Your task to perform on an android device: turn on javascript in the chrome app Image 0: 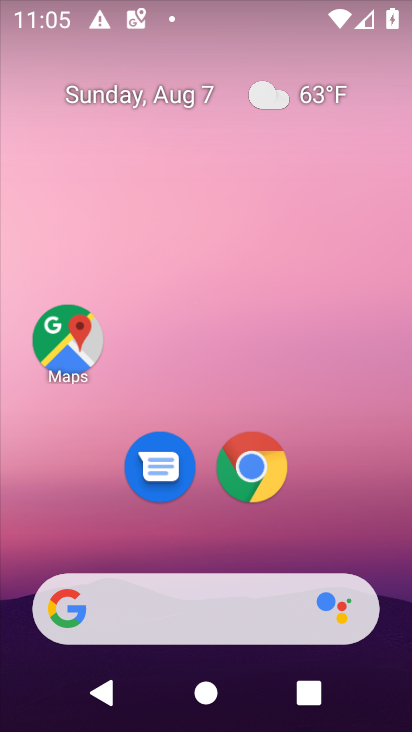
Step 0: drag from (222, 253) to (166, 62)
Your task to perform on an android device: turn on javascript in the chrome app Image 1: 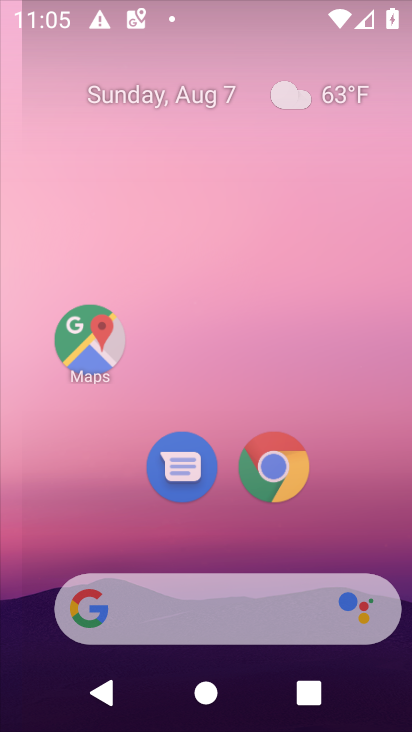
Step 1: drag from (160, 358) to (181, 242)
Your task to perform on an android device: turn on javascript in the chrome app Image 2: 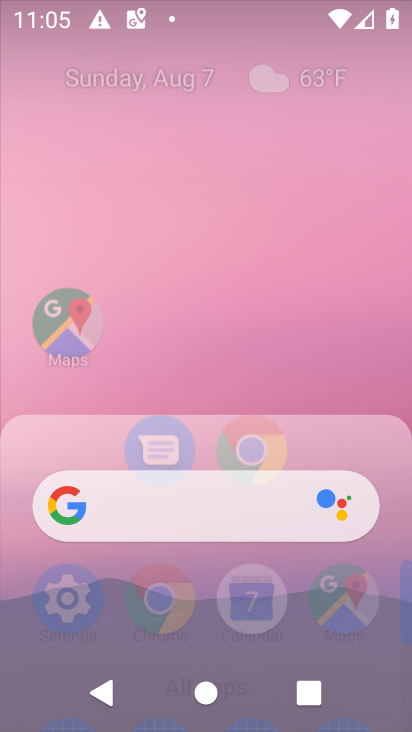
Step 2: drag from (204, 471) to (196, 195)
Your task to perform on an android device: turn on javascript in the chrome app Image 3: 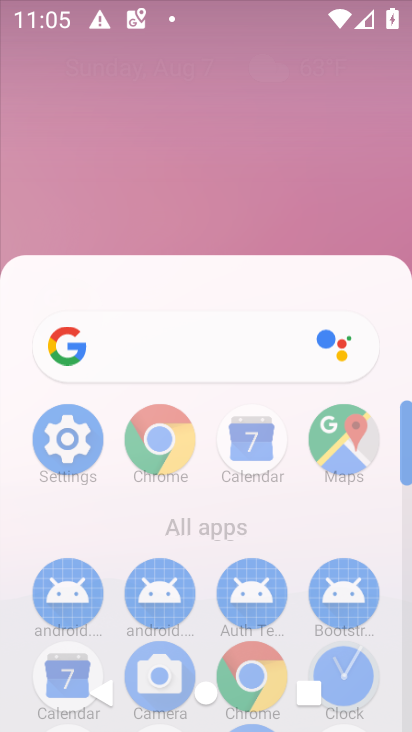
Step 3: drag from (163, 460) to (154, 194)
Your task to perform on an android device: turn on javascript in the chrome app Image 4: 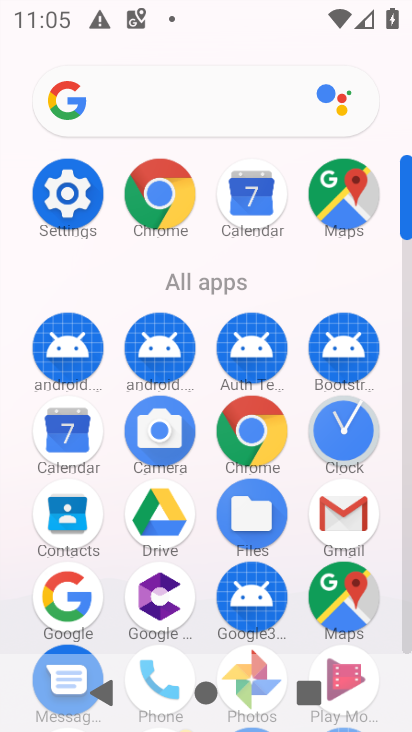
Step 4: click (158, 209)
Your task to perform on an android device: turn on javascript in the chrome app Image 5: 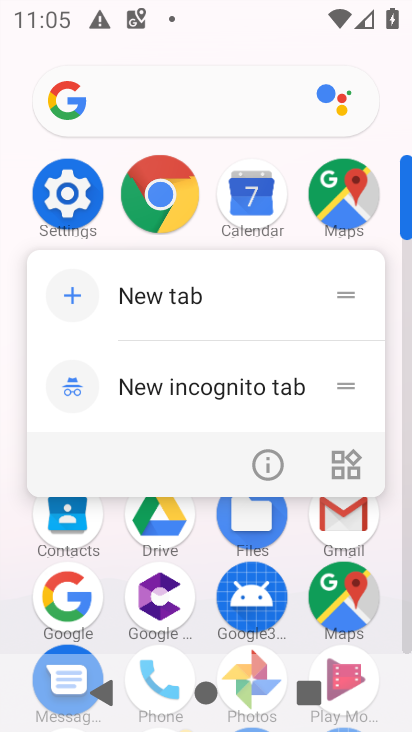
Step 5: click (159, 208)
Your task to perform on an android device: turn on javascript in the chrome app Image 6: 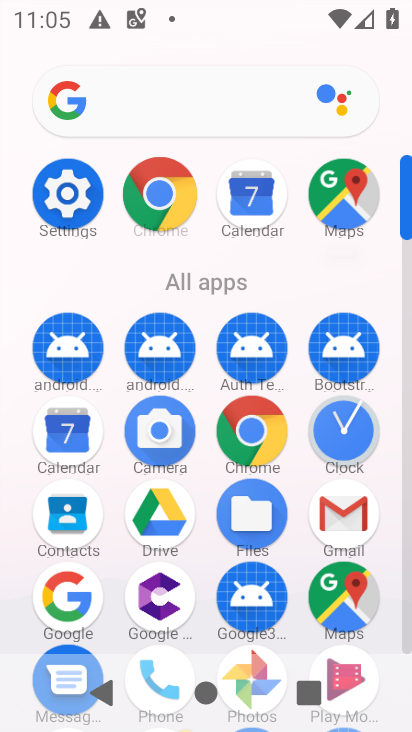
Step 6: click (167, 212)
Your task to perform on an android device: turn on javascript in the chrome app Image 7: 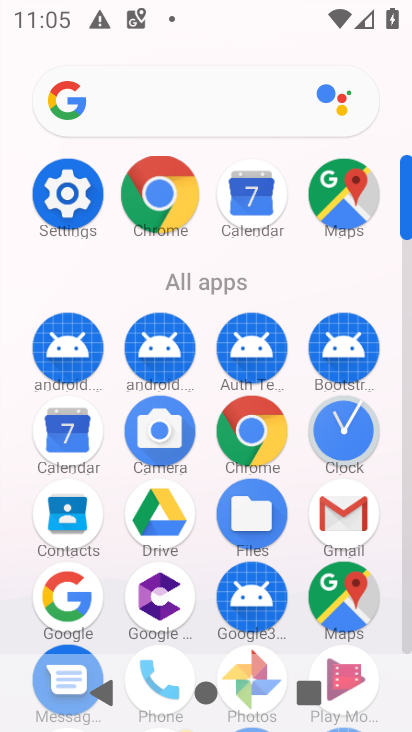
Step 7: click (167, 212)
Your task to perform on an android device: turn on javascript in the chrome app Image 8: 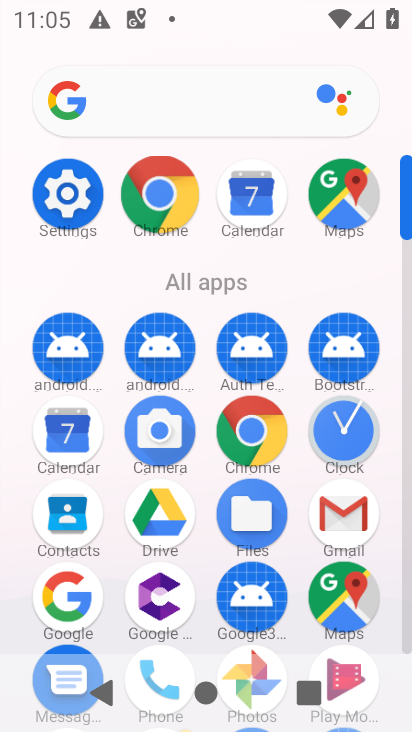
Step 8: click (167, 212)
Your task to perform on an android device: turn on javascript in the chrome app Image 9: 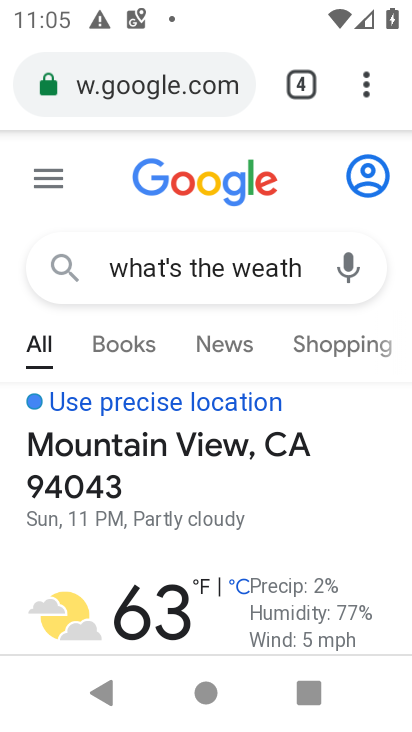
Step 9: drag from (360, 84) to (74, 515)
Your task to perform on an android device: turn on javascript in the chrome app Image 10: 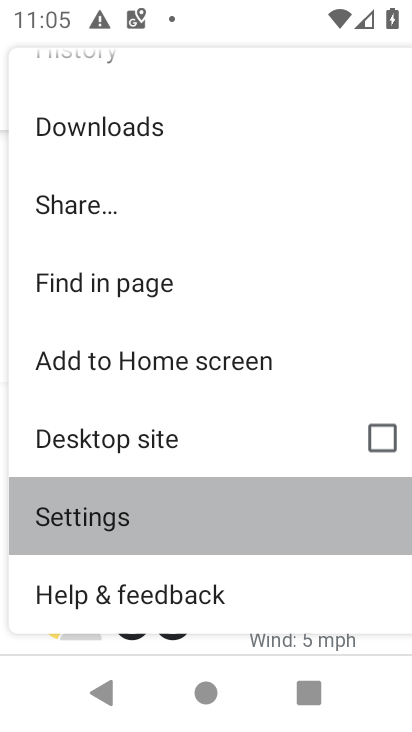
Step 10: click (75, 514)
Your task to perform on an android device: turn on javascript in the chrome app Image 11: 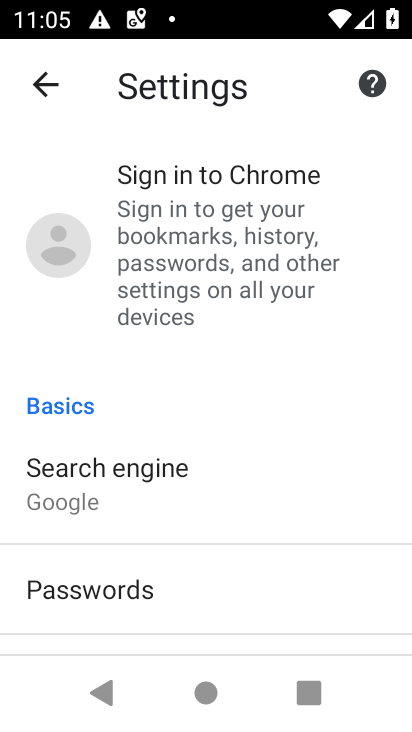
Step 11: drag from (254, 667) to (230, 347)
Your task to perform on an android device: turn on javascript in the chrome app Image 12: 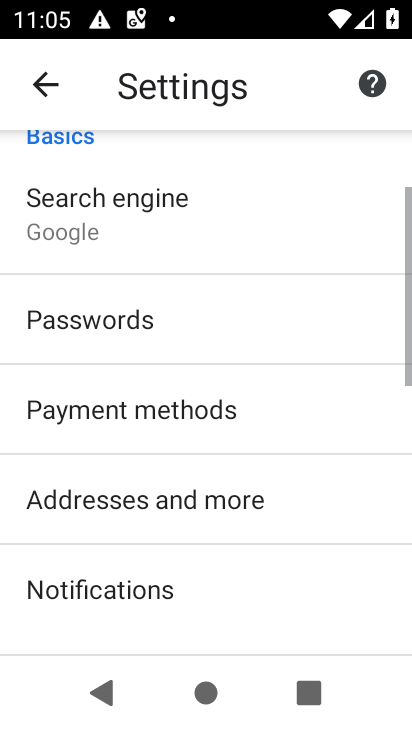
Step 12: drag from (196, 522) to (196, 433)
Your task to perform on an android device: turn on javascript in the chrome app Image 13: 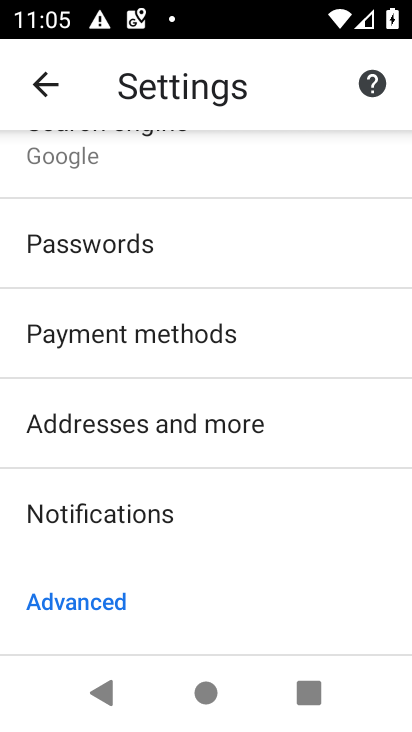
Step 13: drag from (122, 557) to (112, 301)
Your task to perform on an android device: turn on javascript in the chrome app Image 14: 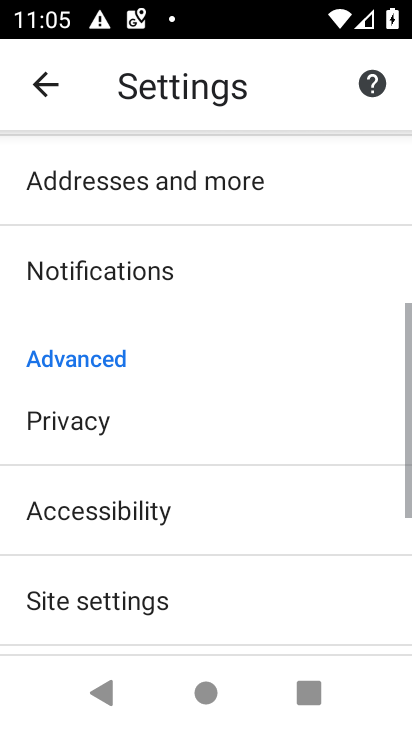
Step 14: drag from (168, 525) to (182, 326)
Your task to perform on an android device: turn on javascript in the chrome app Image 15: 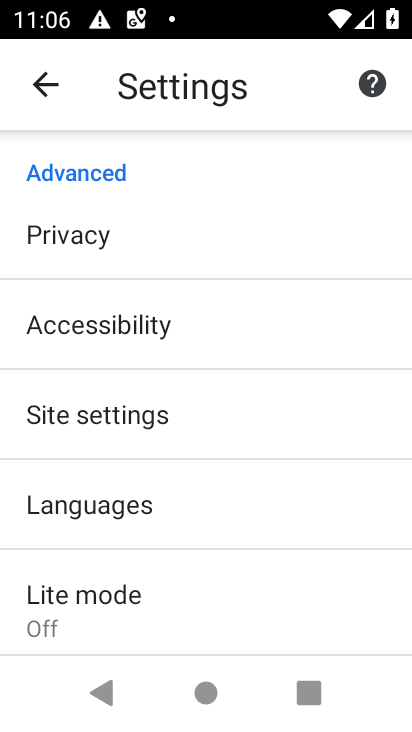
Step 15: click (83, 422)
Your task to perform on an android device: turn on javascript in the chrome app Image 16: 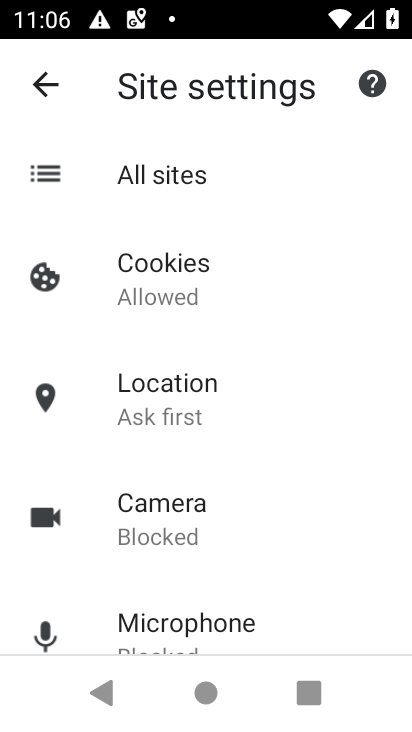
Step 16: drag from (221, 562) to (168, 347)
Your task to perform on an android device: turn on javascript in the chrome app Image 17: 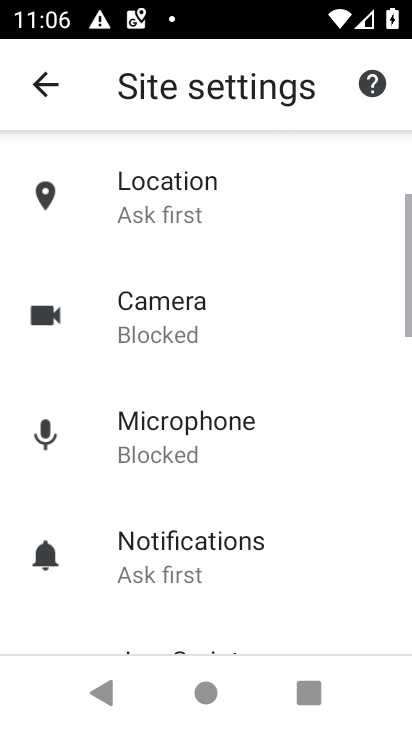
Step 17: drag from (218, 558) to (212, 321)
Your task to perform on an android device: turn on javascript in the chrome app Image 18: 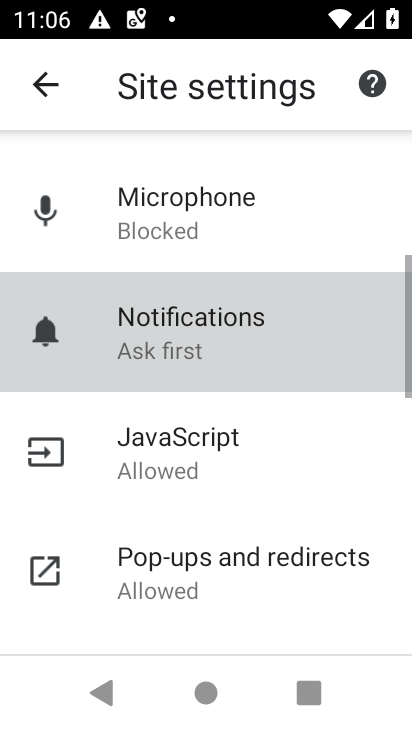
Step 18: drag from (199, 492) to (199, 331)
Your task to perform on an android device: turn on javascript in the chrome app Image 19: 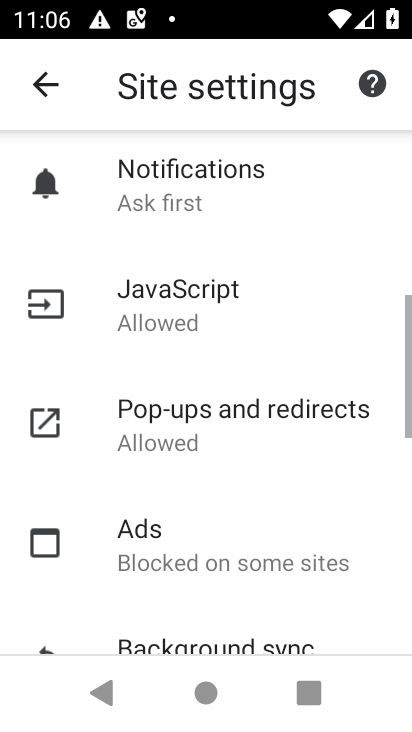
Step 19: drag from (174, 579) to (195, 281)
Your task to perform on an android device: turn on javascript in the chrome app Image 20: 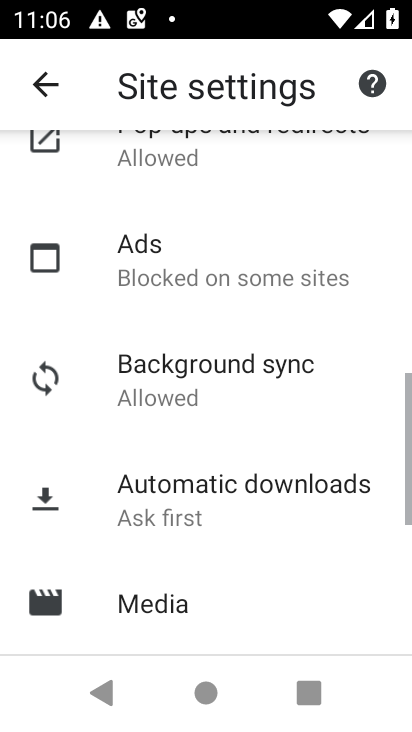
Step 20: click (148, 313)
Your task to perform on an android device: turn on javascript in the chrome app Image 21: 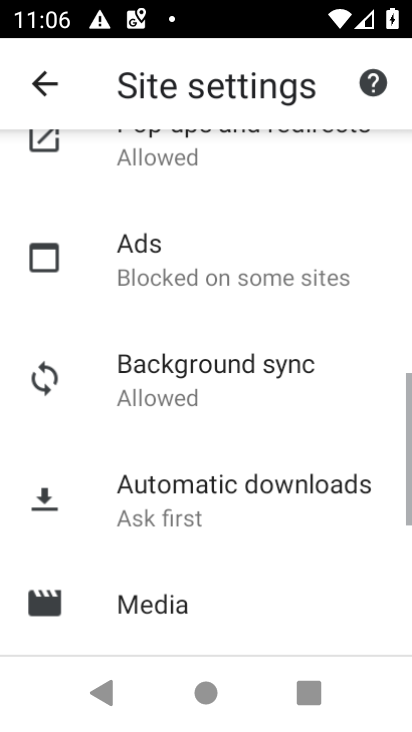
Step 21: drag from (154, 286) to (177, 483)
Your task to perform on an android device: turn on javascript in the chrome app Image 22: 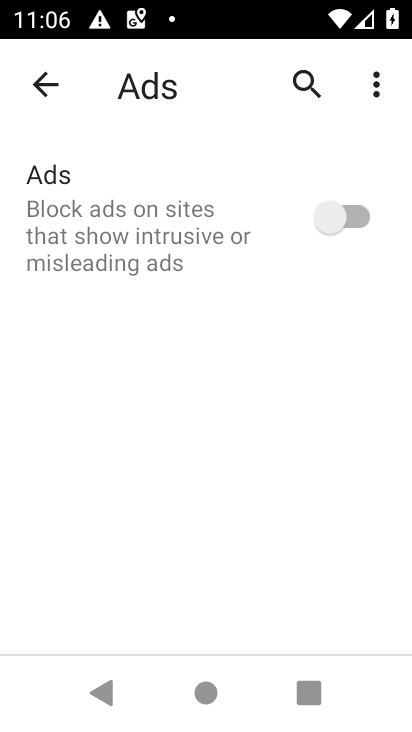
Step 22: click (53, 83)
Your task to perform on an android device: turn on javascript in the chrome app Image 23: 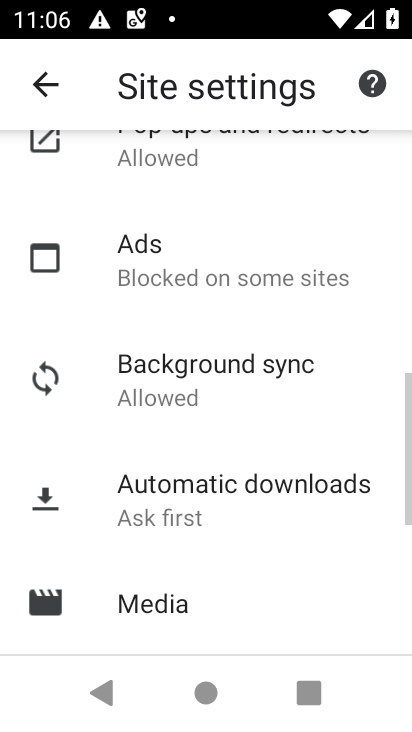
Step 23: drag from (213, 230) to (255, 476)
Your task to perform on an android device: turn on javascript in the chrome app Image 24: 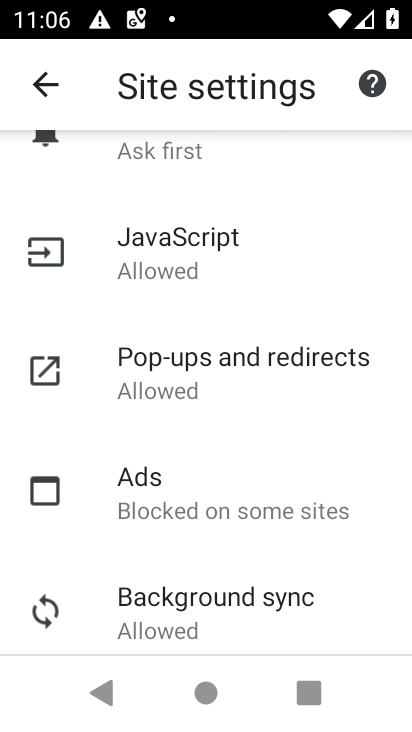
Step 24: click (177, 264)
Your task to perform on an android device: turn on javascript in the chrome app Image 25: 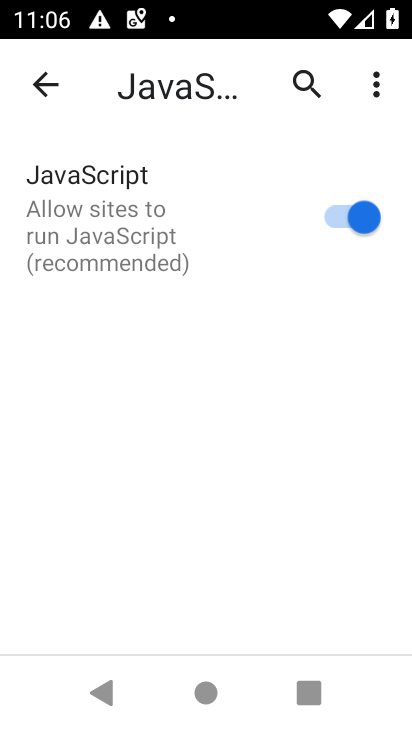
Step 25: task complete